Your task to perform on an android device: Open calendar and show me the first week of next month Image 0: 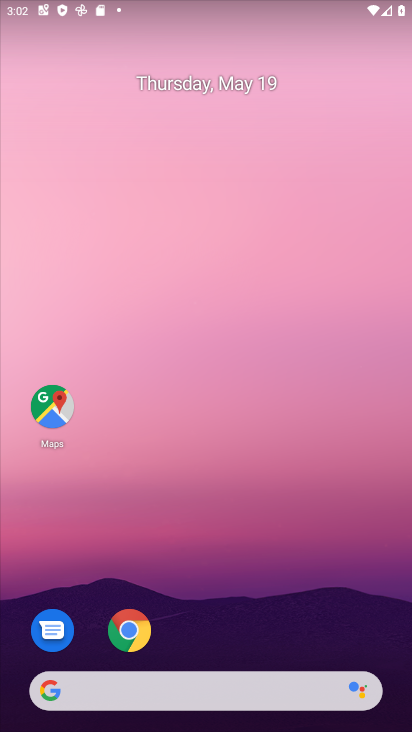
Step 0: drag from (382, 645) to (316, 17)
Your task to perform on an android device: Open calendar and show me the first week of next month Image 1: 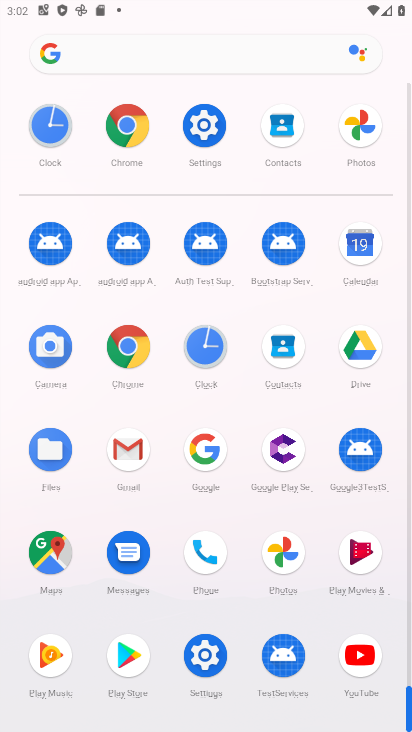
Step 1: click (359, 240)
Your task to perform on an android device: Open calendar and show me the first week of next month Image 2: 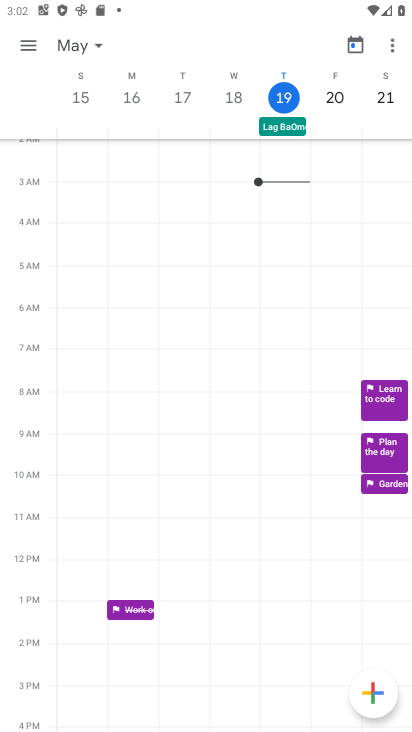
Step 2: click (32, 46)
Your task to perform on an android device: Open calendar and show me the first week of next month Image 3: 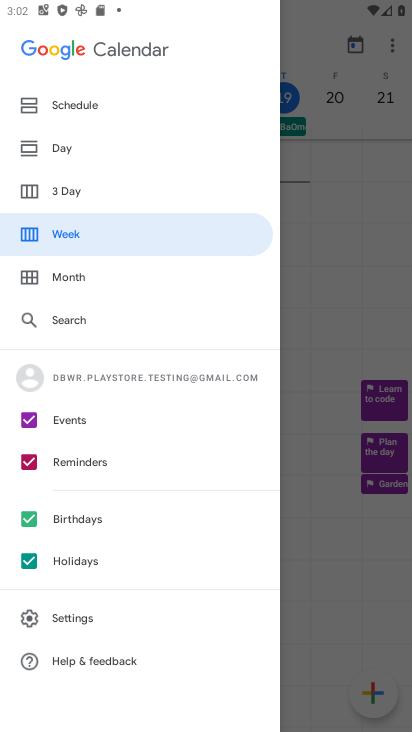
Step 3: click (101, 236)
Your task to perform on an android device: Open calendar and show me the first week of next month Image 4: 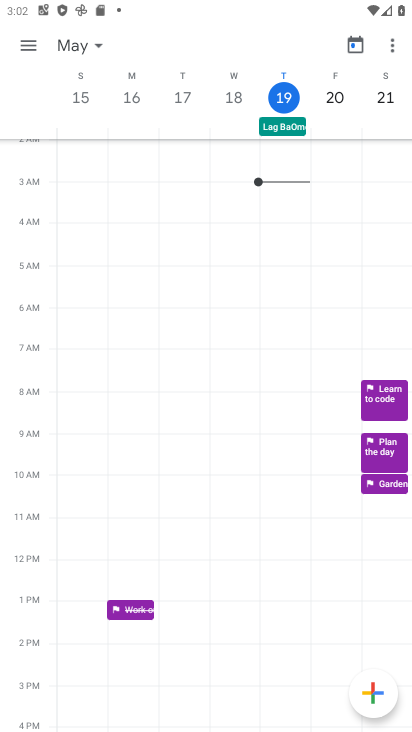
Step 4: click (98, 45)
Your task to perform on an android device: Open calendar and show me the first week of next month Image 5: 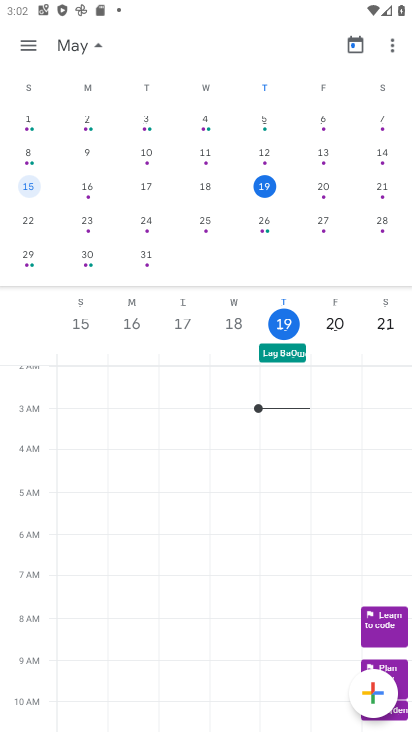
Step 5: task complete